Your task to perform on an android device: show emergency info Image 0: 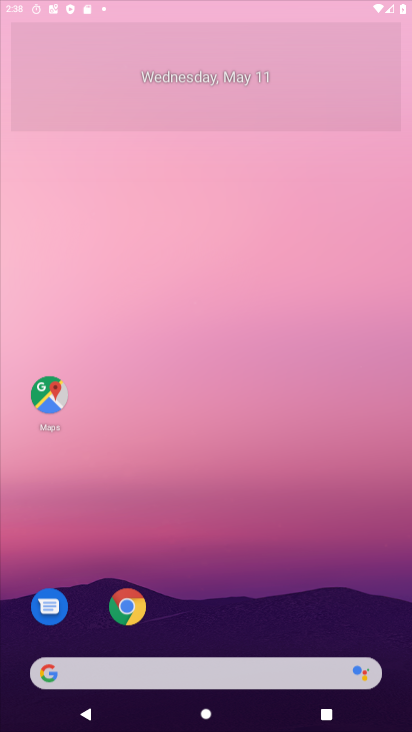
Step 0: press home button
Your task to perform on an android device: show emergency info Image 1: 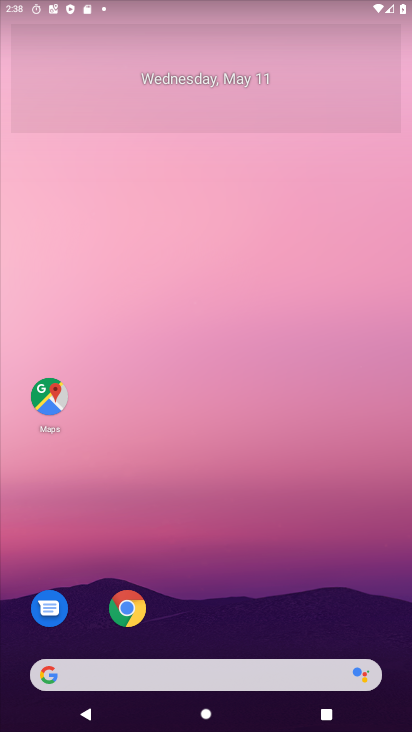
Step 1: drag from (257, 597) to (229, 130)
Your task to perform on an android device: show emergency info Image 2: 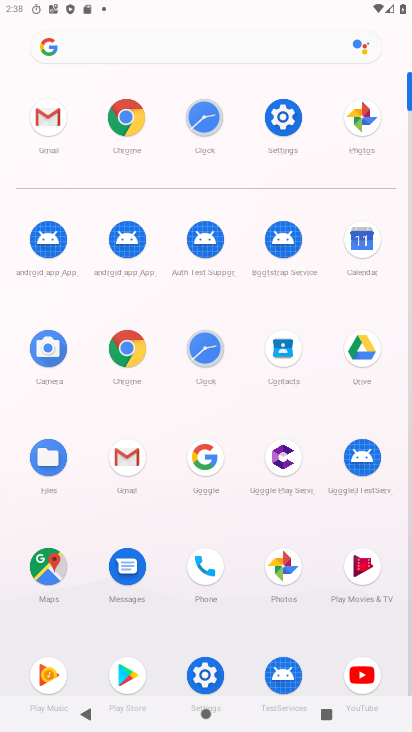
Step 2: drag from (178, 100) to (220, 529)
Your task to perform on an android device: show emergency info Image 3: 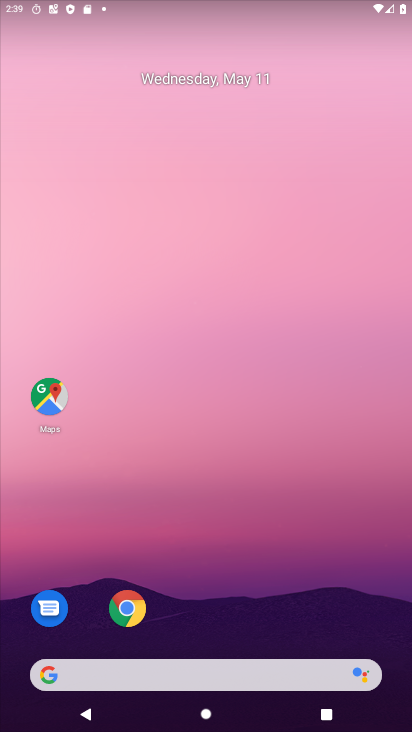
Step 3: drag from (210, 16) to (406, 540)
Your task to perform on an android device: show emergency info Image 4: 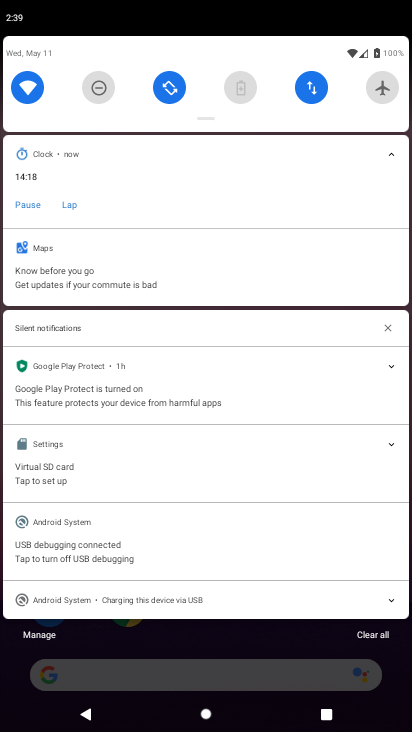
Step 4: drag from (258, 217) to (270, 620)
Your task to perform on an android device: show emergency info Image 5: 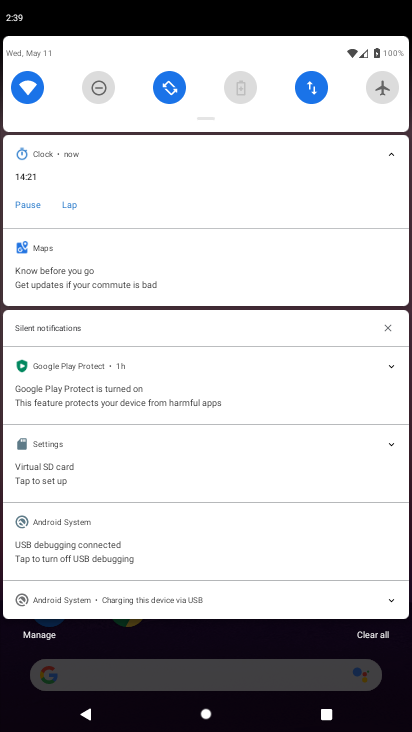
Step 5: drag from (182, 113) to (160, 634)
Your task to perform on an android device: show emergency info Image 6: 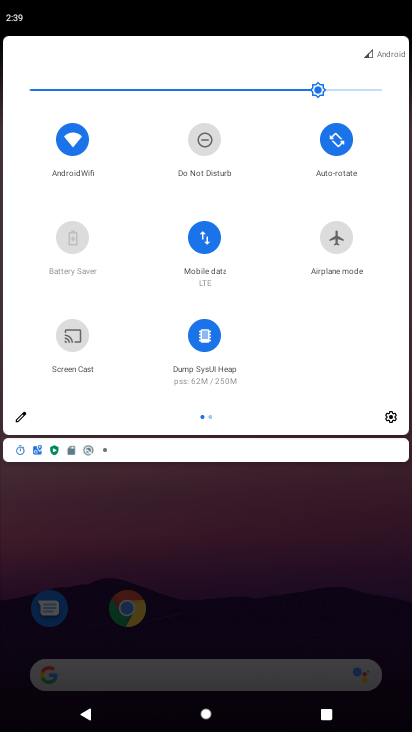
Step 6: drag from (332, 319) to (16, 307)
Your task to perform on an android device: show emergency info Image 7: 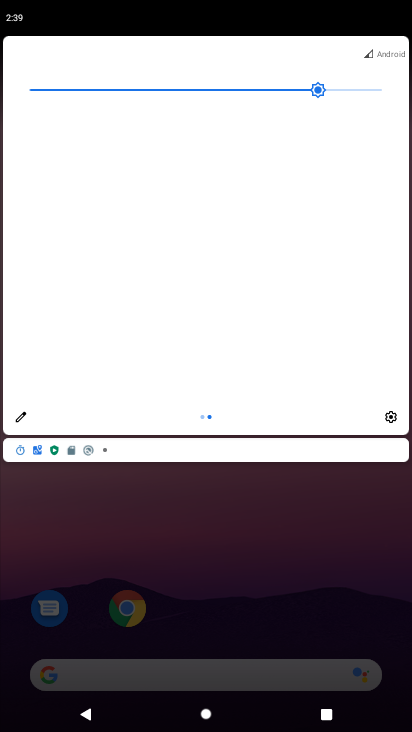
Step 7: click (390, 416)
Your task to perform on an android device: show emergency info Image 8: 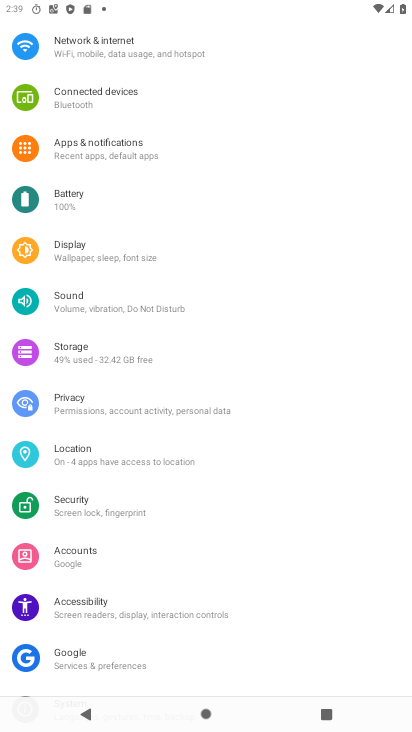
Step 8: drag from (265, 298) to (297, 525)
Your task to perform on an android device: show emergency info Image 9: 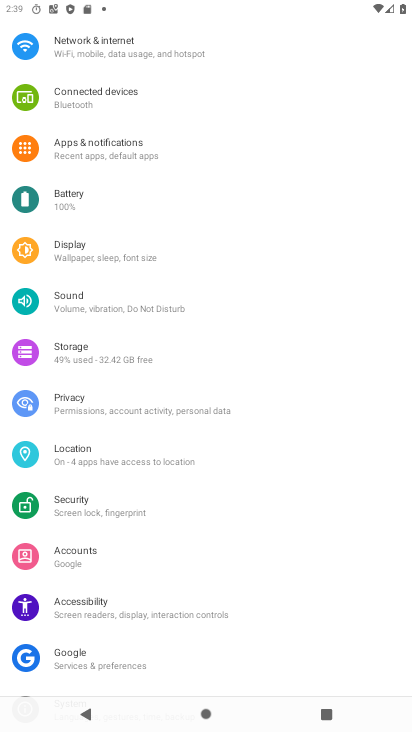
Step 9: drag from (223, 170) to (214, 545)
Your task to perform on an android device: show emergency info Image 10: 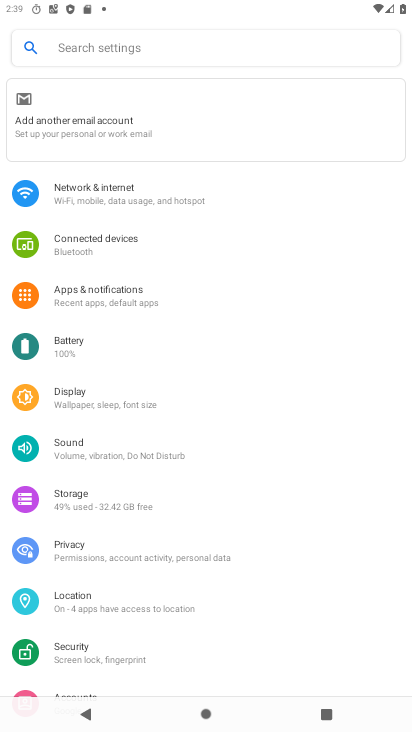
Step 10: drag from (302, 577) to (236, 281)
Your task to perform on an android device: show emergency info Image 11: 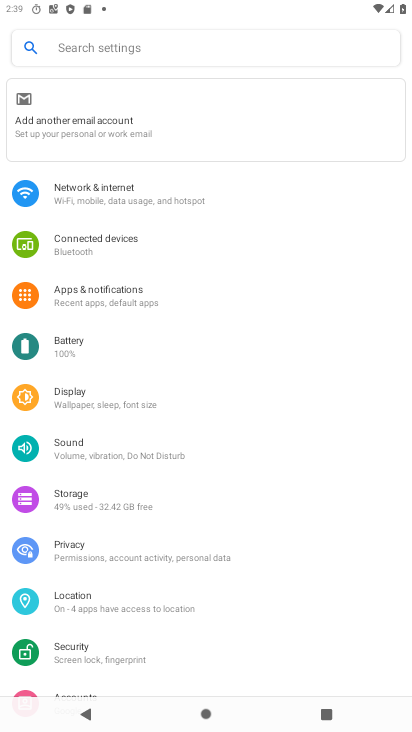
Step 11: drag from (275, 584) to (103, 261)
Your task to perform on an android device: show emergency info Image 12: 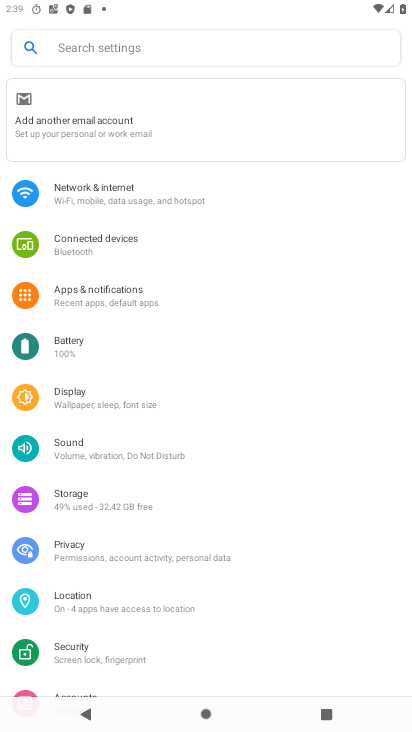
Step 12: drag from (229, 643) to (212, 351)
Your task to perform on an android device: show emergency info Image 13: 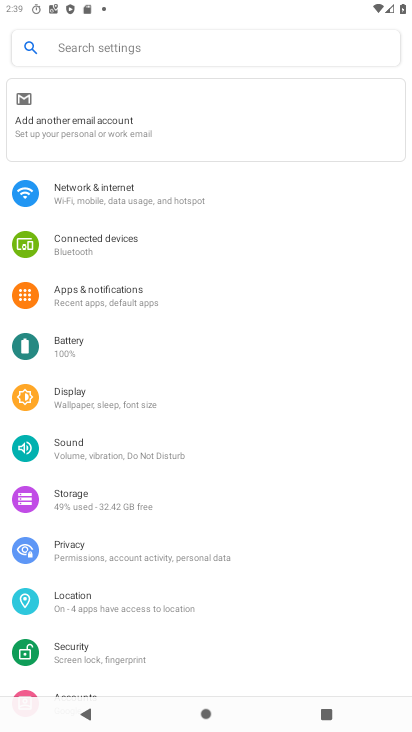
Step 13: drag from (259, 650) to (244, 136)
Your task to perform on an android device: show emergency info Image 14: 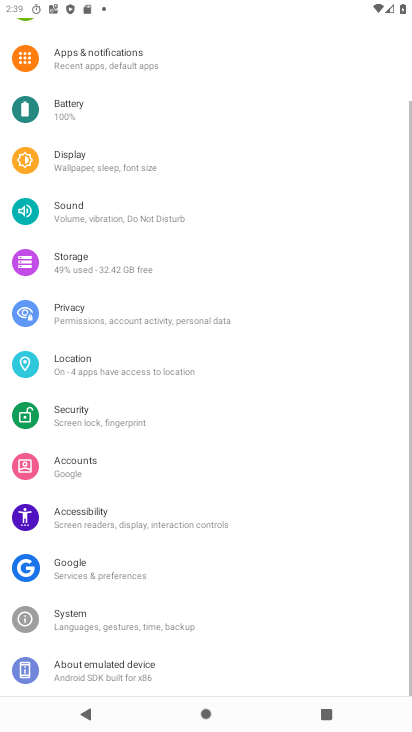
Step 14: drag from (300, 541) to (249, 211)
Your task to perform on an android device: show emergency info Image 15: 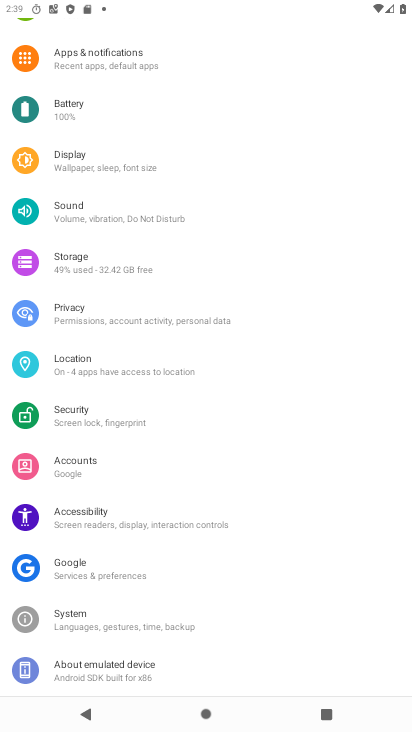
Step 15: click (254, 655)
Your task to perform on an android device: show emergency info Image 16: 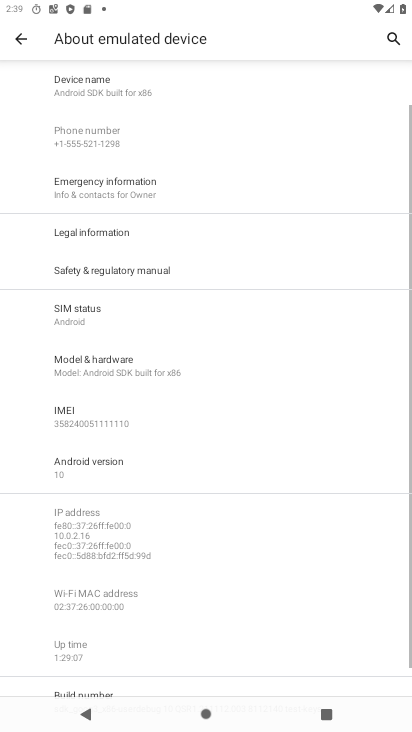
Step 16: drag from (177, 581) to (107, 126)
Your task to perform on an android device: show emergency info Image 17: 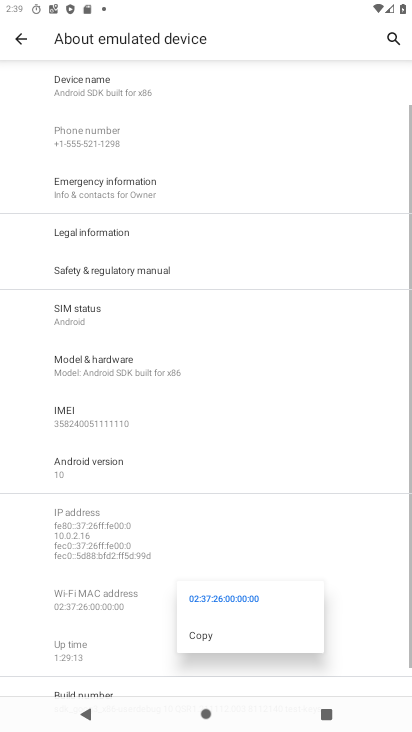
Step 17: drag from (328, 495) to (259, 188)
Your task to perform on an android device: show emergency info Image 18: 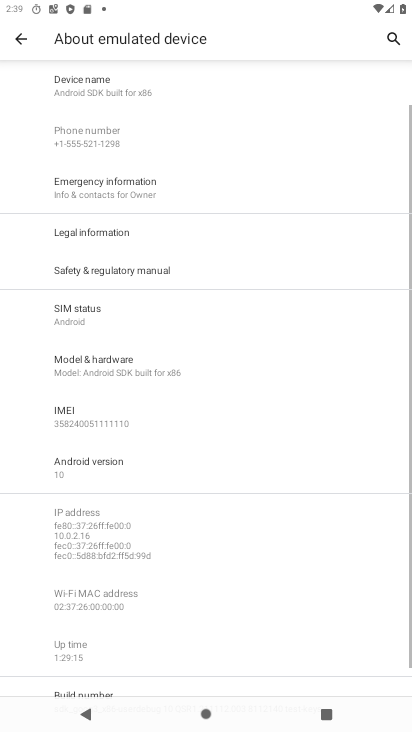
Step 18: drag from (253, 591) to (228, 345)
Your task to perform on an android device: show emergency info Image 19: 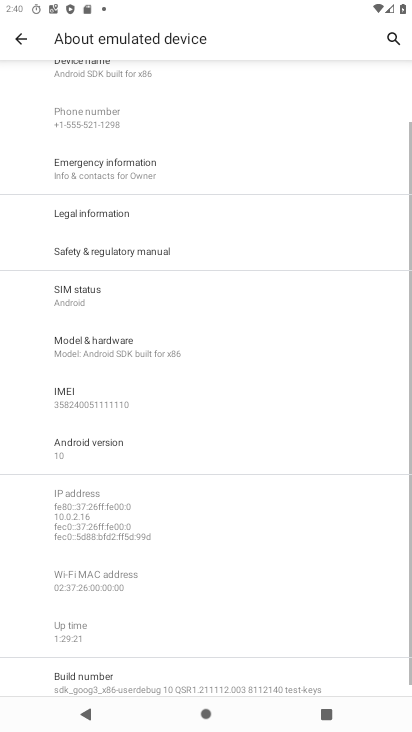
Step 19: click (159, 162)
Your task to perform on an android device: show emergency info Image 20: 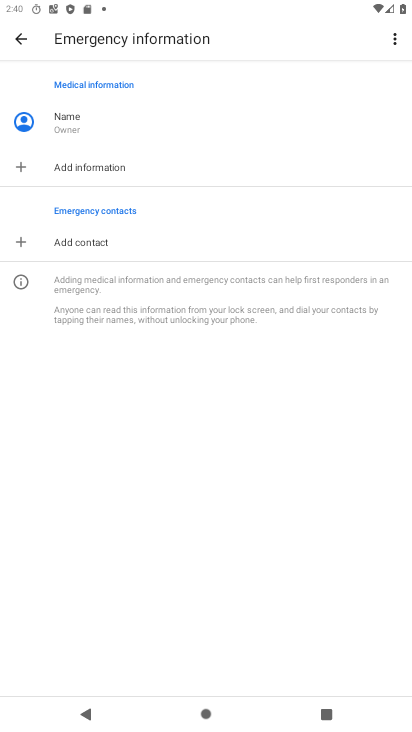
Step 20: click (21, 34)
Your task to perform on an android device: show emergency info Image 21: 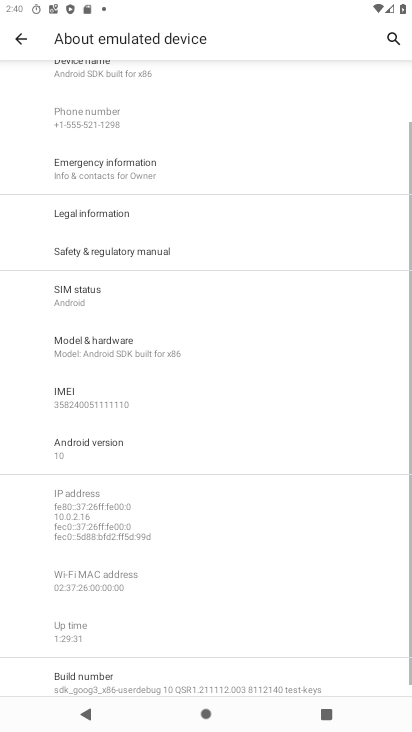
Step 21: task complete